Your task to perform on an android device: turn off translation in the chrome app Image 0: 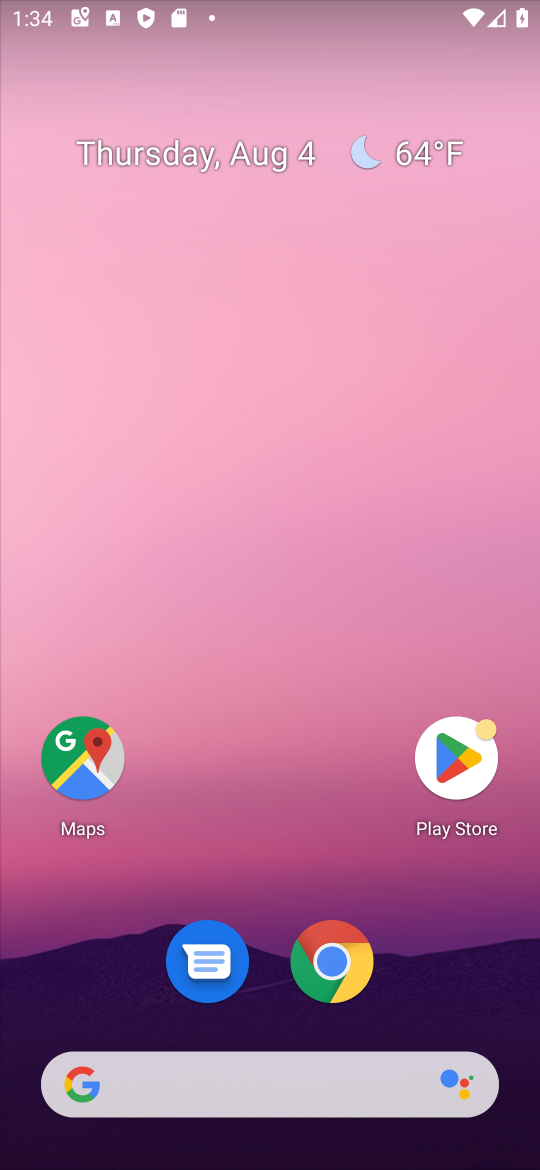
Step 0: click (331, 951)
Your task to perform on an android device: turn off translation in the chrome app Image 1: 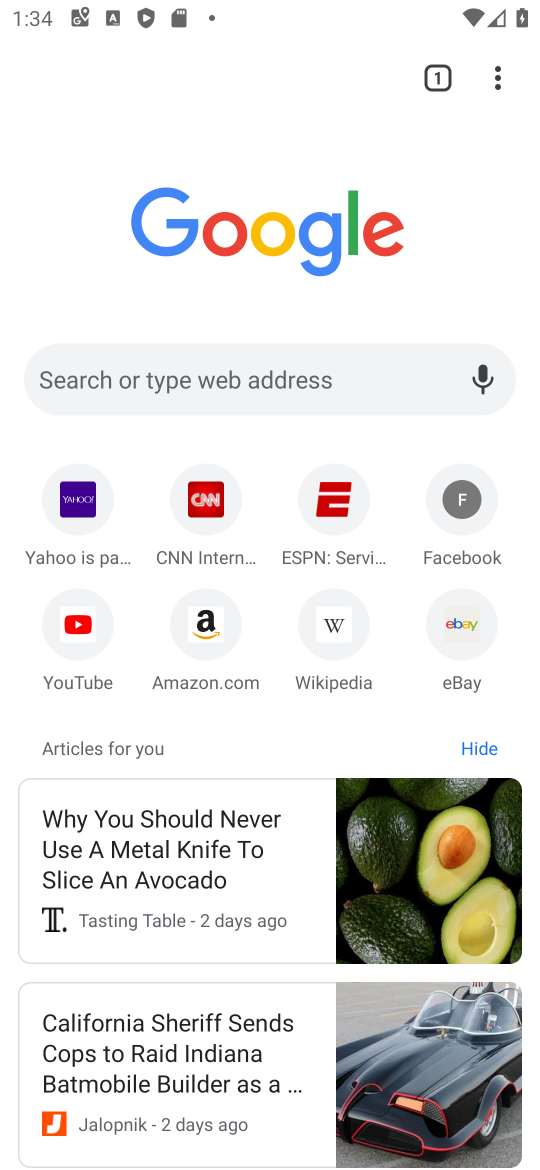
Step 1: click (492, 87)
Your task to perform on an android device: turn off translation in the chrome app Image 2: 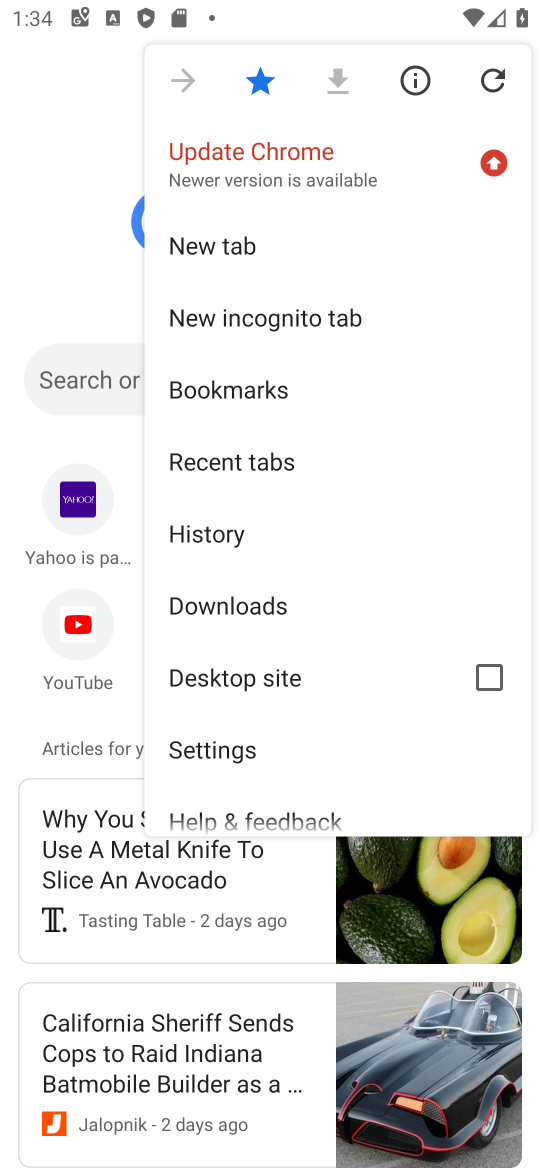
Step 2: click (251, 750)
Your task to perform on an android device: turn off translation in the chrome app Image 3: 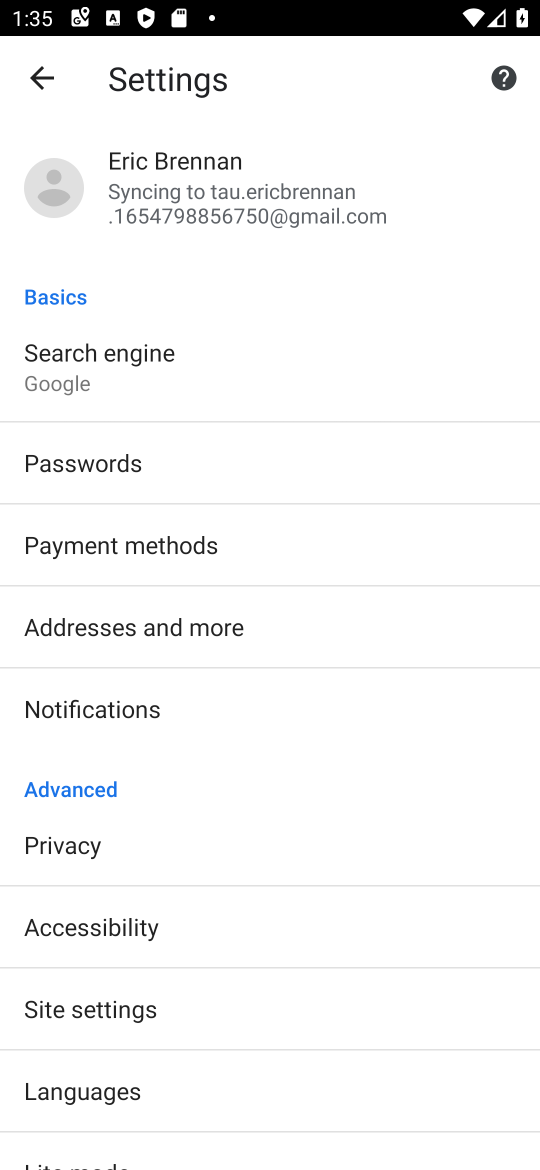
Step 3: click (223, 1093)
Your task to perform on an android device: turn off translation in the chrome app Image 4: 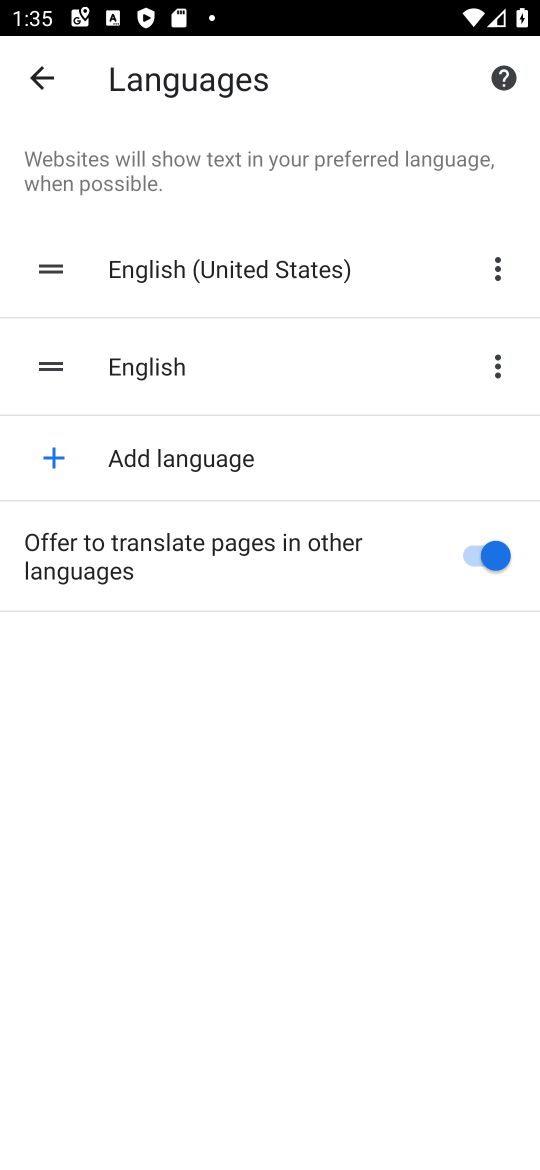
Step 4: click (484, 547)
Your task to perform on an android device: turn off translation in the chrome app Image 5: 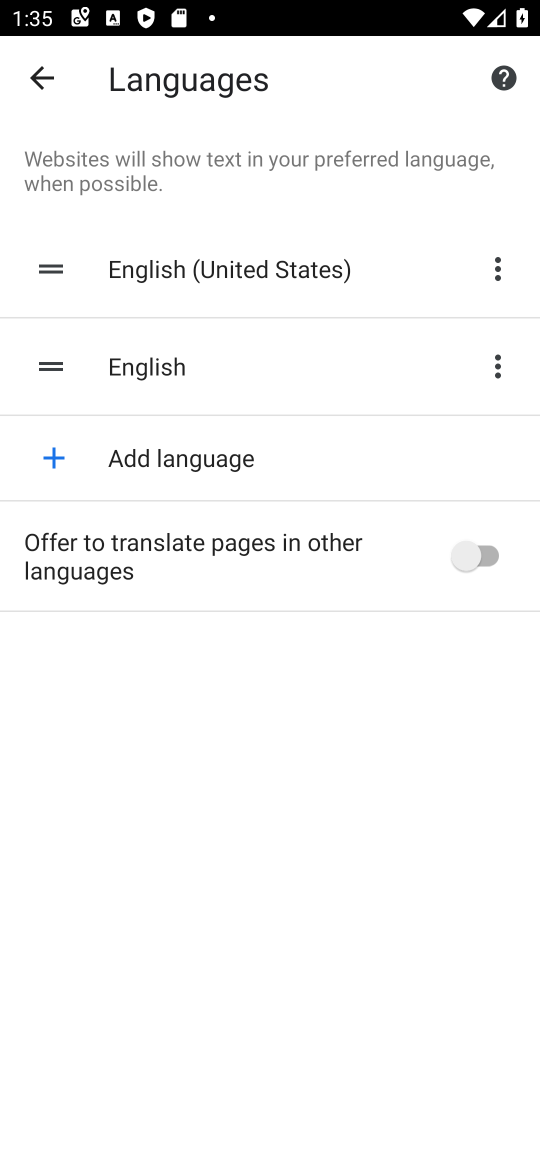
Step 5: task complete